Your task to perform on an android device: Search for vegetarian restaurants on Maps Image 0: 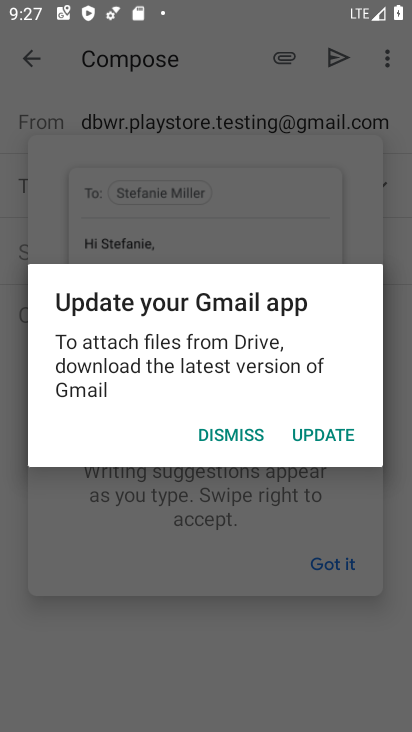
Step 0: press home button
Your task to perform on an android device: Search for vegetarian restaurants on Maps Image 1: 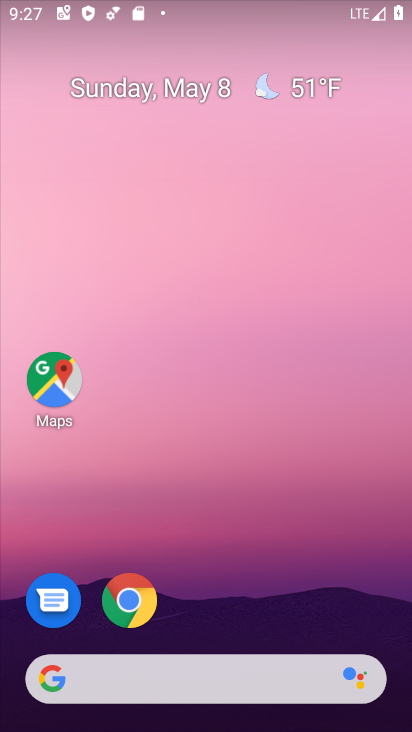
Step 1: click (45, 378)
Your task to perform on an android device: Search for vegetarian restaurants on Maps Image 2: 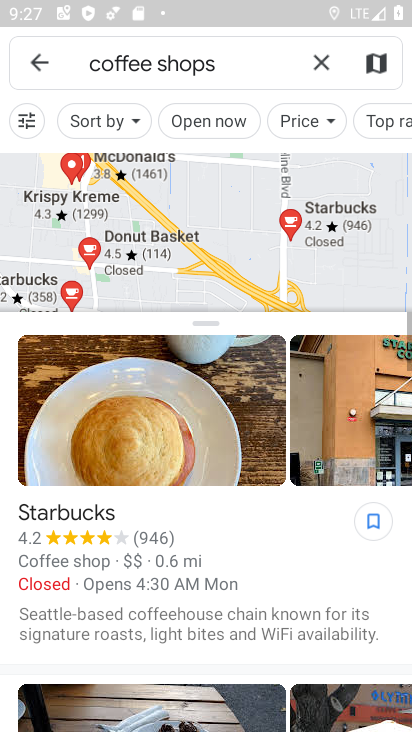
Step 2: click (329, 64)
Your task to perform on an android device: Search for vegetarian restaurants on Maps Image 3: 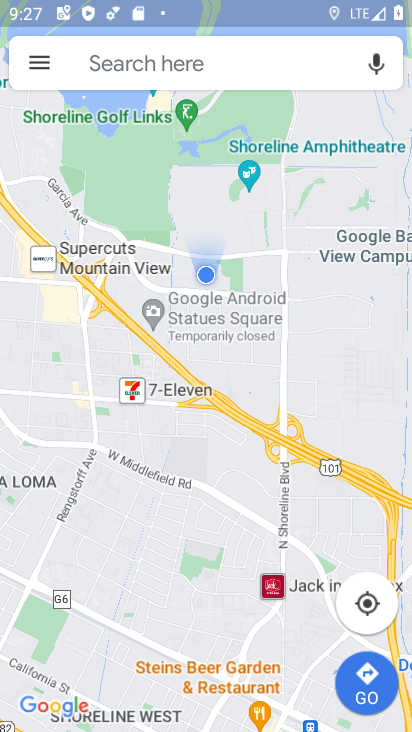
Step 3: click (85, 63)
Your task to perform on an android device: Search for vegetarian restaurants on Maps Image 4: 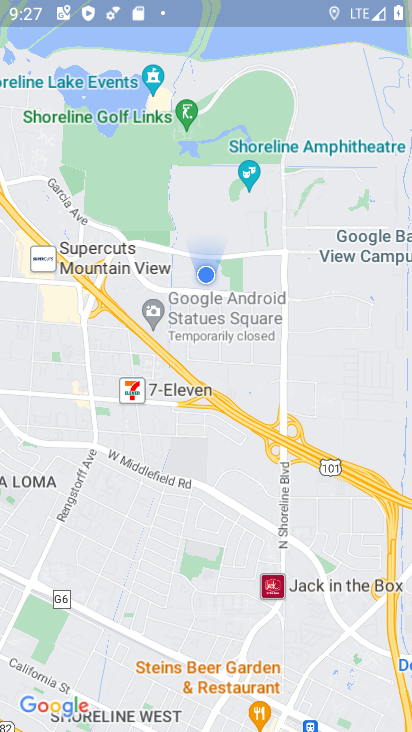
Step 4: click (180, 86)
Your task to perform on an android device: Search for vegetarian restaurants on Maps Image 5: 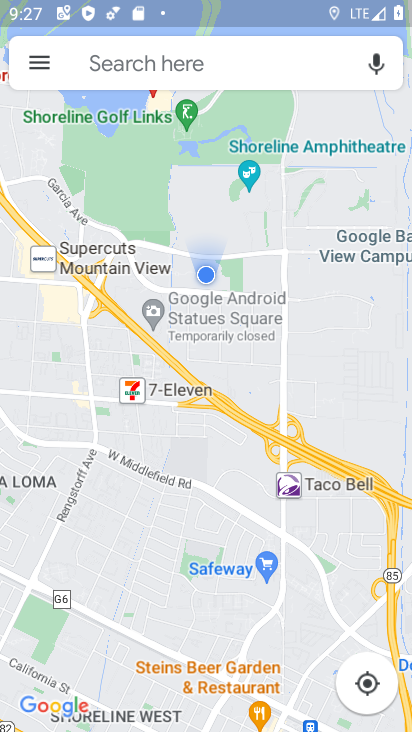
Step 5: click (114, 64)
Your task to perform on an android device: Search for vegetarian restaurants on Maps Image 6: 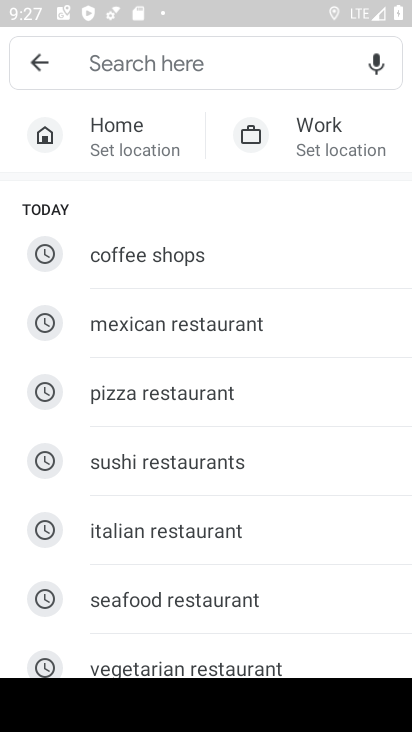
Step 6: type "vegetarian restaurant"
Your task to perform on an android device: Search for vegetarian restaurants on Maps Image 7: 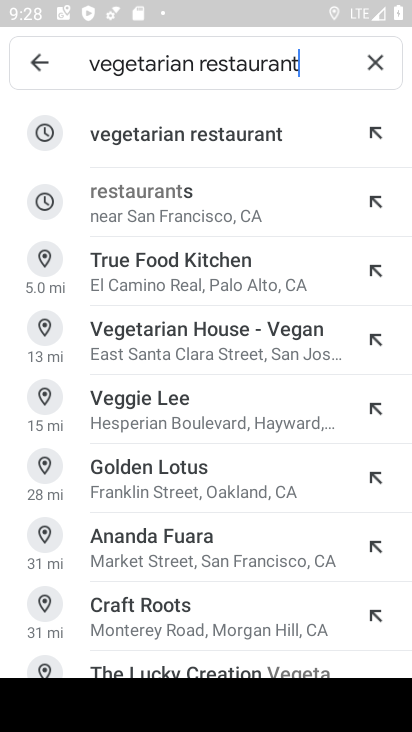
Step 7: click (178, 141)
Your task to perform on an android device: Search for vegetarian restaurants on Maps Image 8: 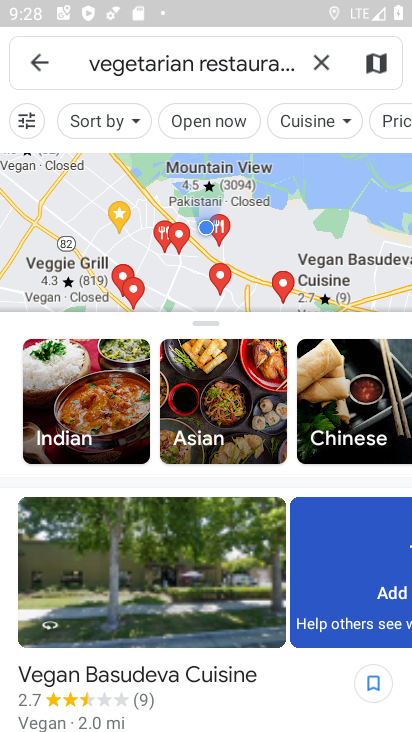
Step 8: task complete